Your task to perform on an android device: Empty the shopping cart on newegg.com. Search for "alienware area 51" on newegg.com, select the first entry, and add it to the cart. Image 0: 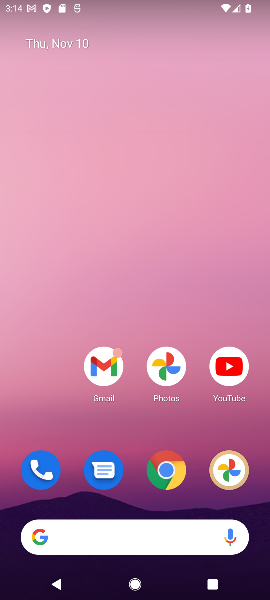
Step 0: click (169, 474)
Your task to perform on an android device: Empty the shopping cart on newegg.com. Search for "alienware area 51" on newegg.com, select the first entry, and add it to the cart. Image 1: 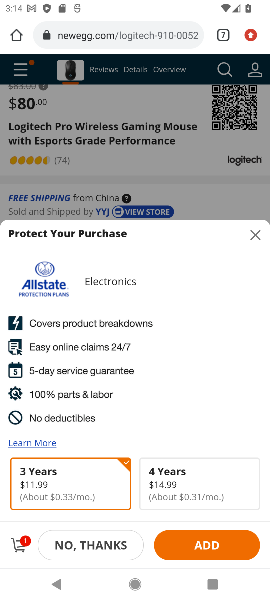
Step 1: click (253, 229)
Your task to perform on an android device: Empty the shopping cart on newegg.com. Search for "alienware area 51" on newegg.com, select the first entry, and add it to the cart. Image 2: 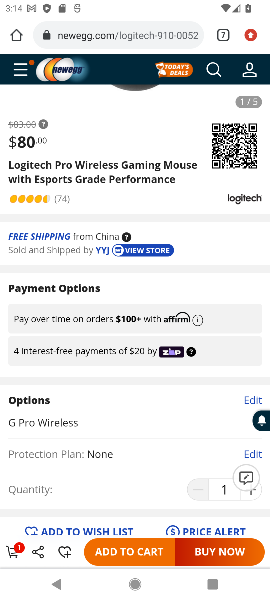
Step 2: click (214, 70)
Your task to perform on an android device: Empty the shopping cart on newegg.com. Search for "alienware area 51" on newegg.com, select the first entry, and add it to the cart. Image 3: 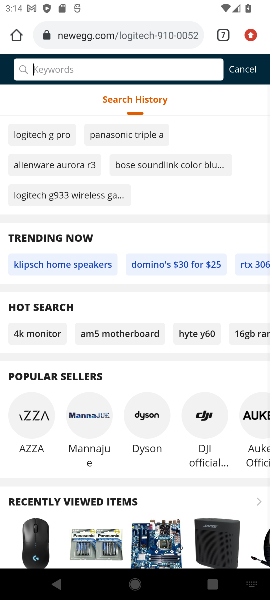
Step 3: type "alienware area 51"
Your task to perform on an android device: Empty the shopping cart on newegg.com. Search for "alienware area 51" on newegg.com, select the first entry, and add it to the cart. Image 4: 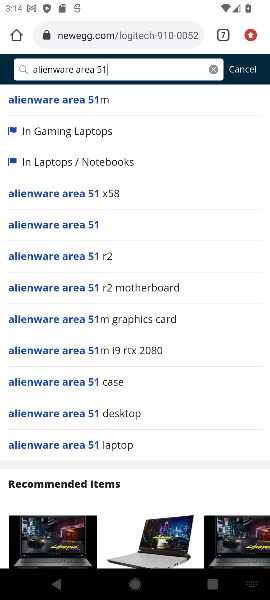
Step 4: click (57, 101)
Your task to perform on an android device: Empty the shopping cart on newegg.com. Search for "alienware area 51" on newegg.com, select the first entry, and add it to the cart. Image 5: 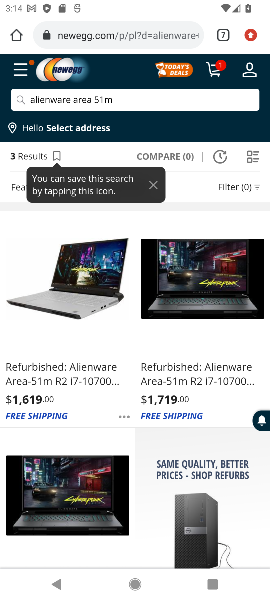
Step 5: click (199, 376)
Your task to perform on an android device: Empty the shopping cart on newegg.com. Search for "alienware area 51" on newegg.com, select the first entry, and add it to the cart. Image 6: 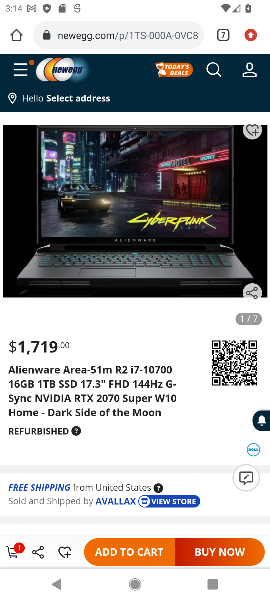
Step 6: click (126, 555)
Your task to perform on an android device: Empty the shopping cart on newegg.com. Search for "alienware area 51" on newegg.com, select the first entry, and add it to the cart. Image 7: 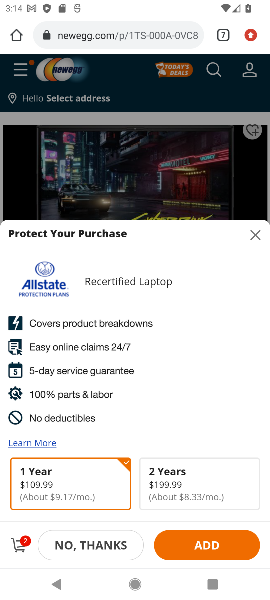
Step 7: task complete